Your task to perform on an android device: Go to Google maps Image 0: 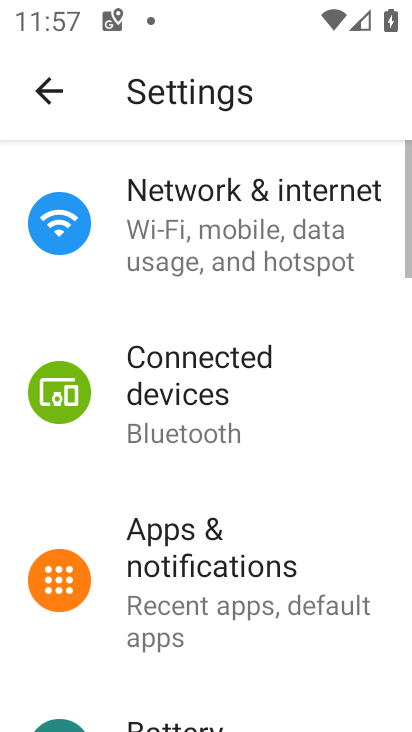
Step 0: press home button
Your task to perform on an android device: Go to Google maps Image 1: 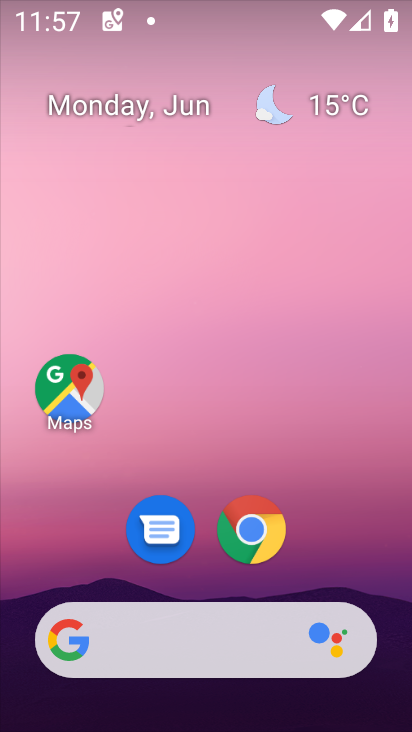
Step 1: click (32, 406)
Your task to perform on an android device: Go to Google maps Image 2: 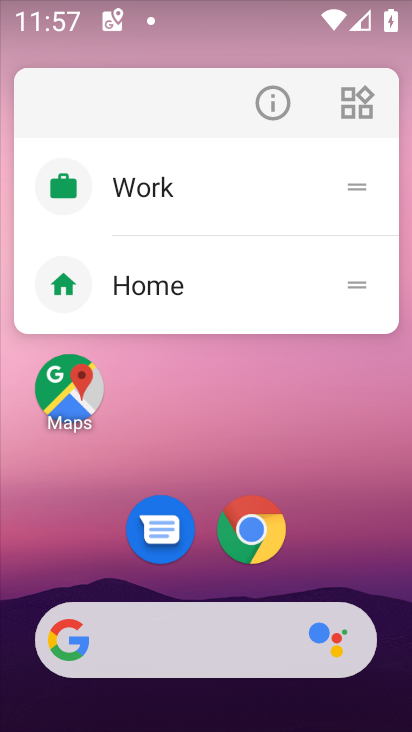
Step 2: click (37, 406)
Your task to perform on an android device: Go to Google maps Image 3: 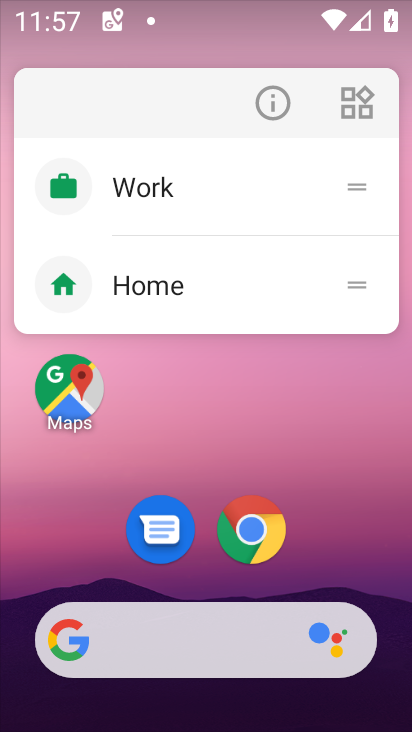
Step 3: click (57, 405)
Your task to perform on an android device: Go to Google maps Image 4: 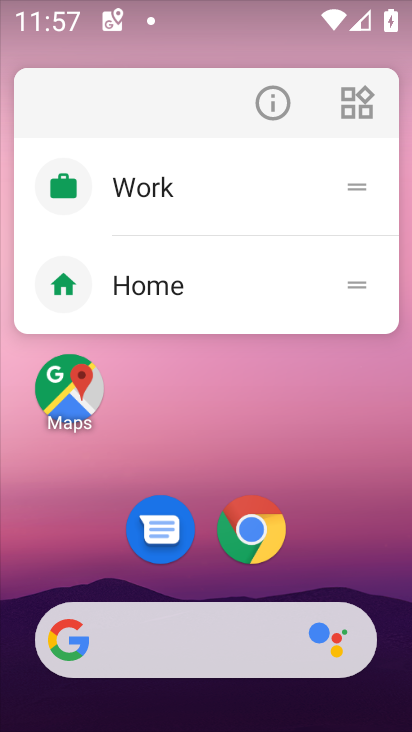
Step 4: click (97, 382)
Your task to perform on an android device: Go to Google maps Image 5: 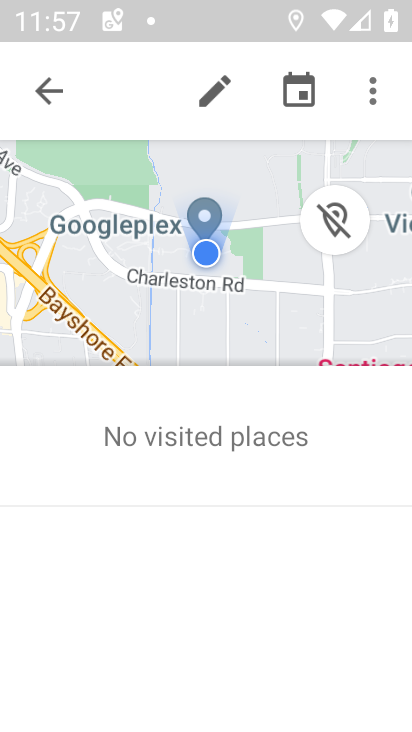
Step 5: task complete